Your task to perform on an android device: find which apps use the phone's location Image 0: 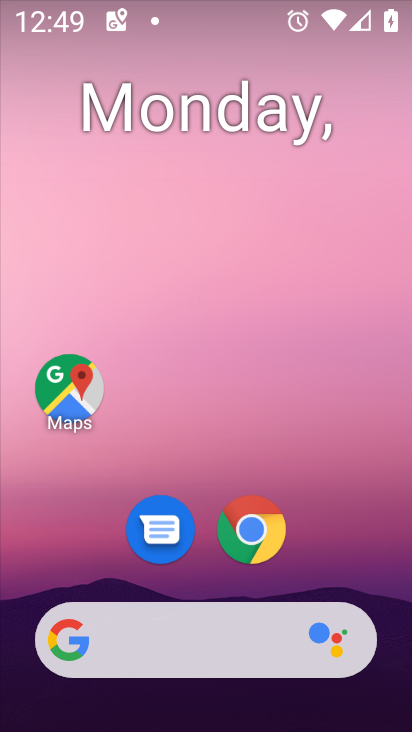
Step 0: drag from (253, 621) to (177, 18)
Your task to perform on an android device: find which apps use the phone's location Image 1: 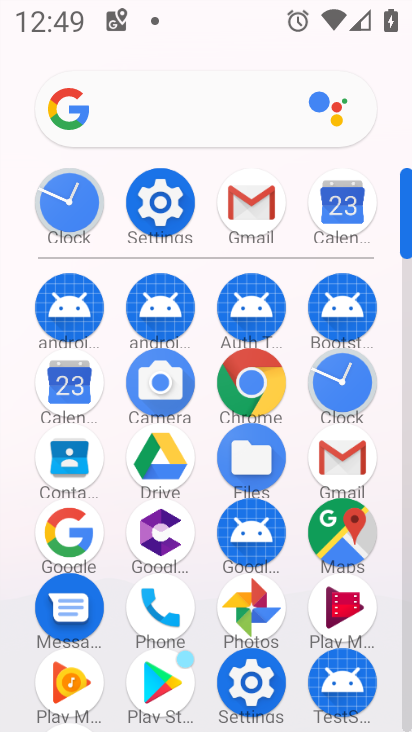
Step 1: click (167, 209)
Your task to perform on an android device: find which apps use the phone's location Image 2: 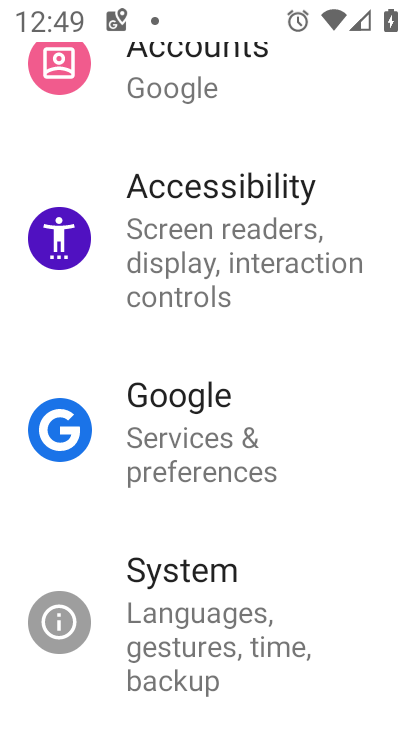
Step 2: drag from (182, 245) to (120, 691)
Your task to perform on an android device: find which apps use the phone's location Image 3: 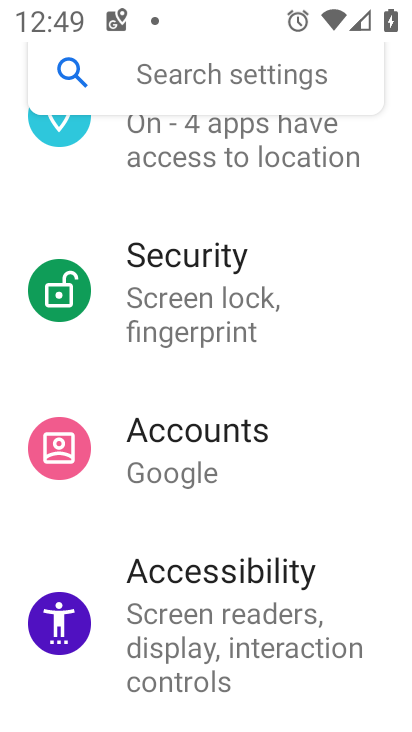
Step 3: click (161, 168)
Your task to perform on an android device: find which apps use the phone's location Image 4: 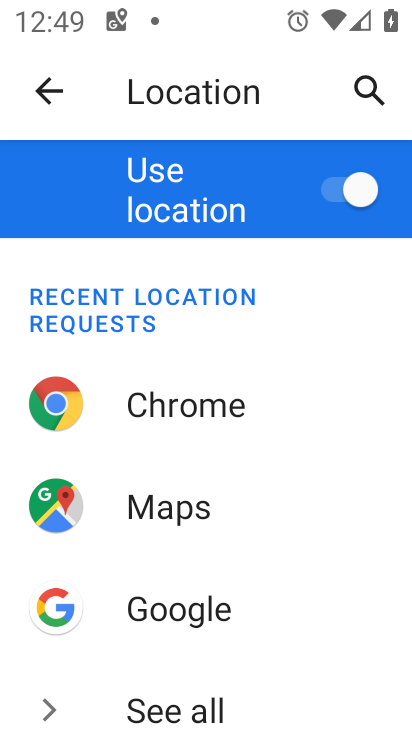
Step 4: drag from (187, 626) to (109, 28)
Your task to perform on an android device: find which apps use the phone's location Image 5: 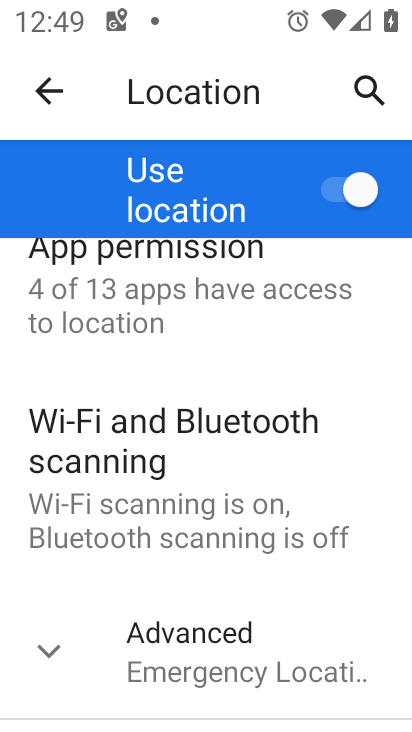
Step 5: click (144, 308)
Your task to perform on an android device: find which apps use the phone's location Image 6: 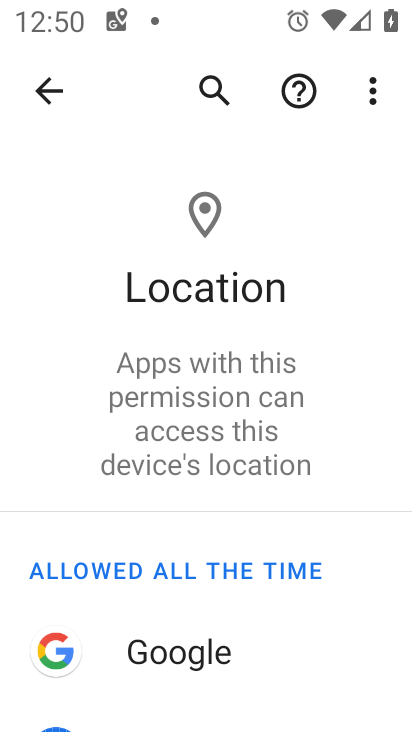
Step 6: task complete